Your task to perform on an android device: toggle location history Image 0: 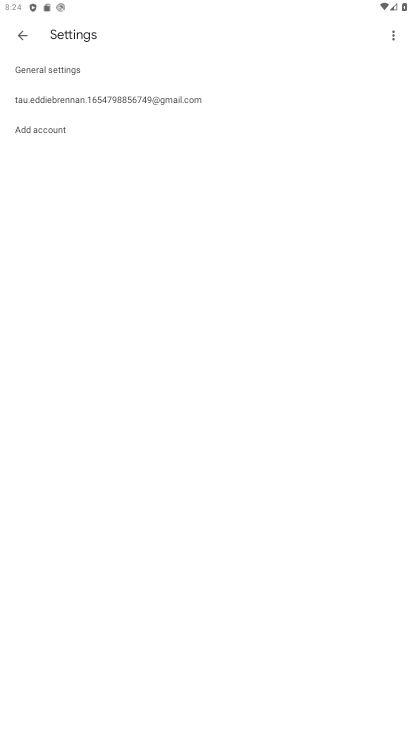
Step 0: press home button
Your task to perform on an android device: toggle location history Image 1: 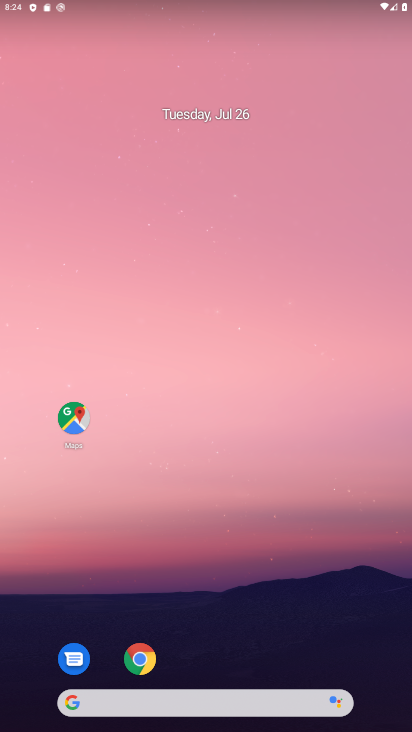
Step 1: click (80, 417)
Your task to perform on an android device: toggle location history Image 2: 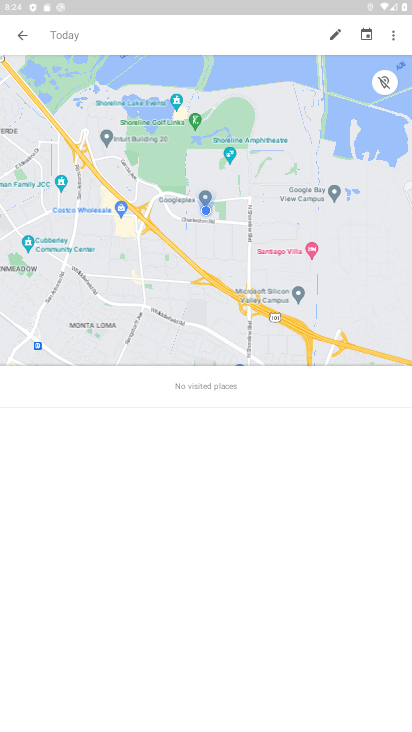
Step 2: press back button
Your task to perform on an android device: toggle location history Image 3: 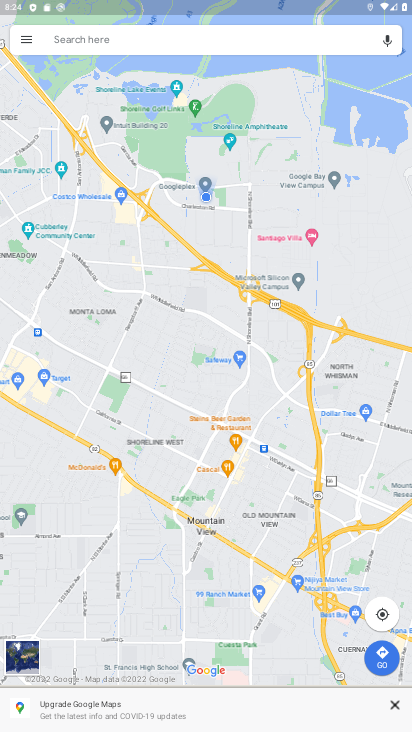
Step 3: click (23, 48)
Your task to perform on an android device: toggle location history Image 4: 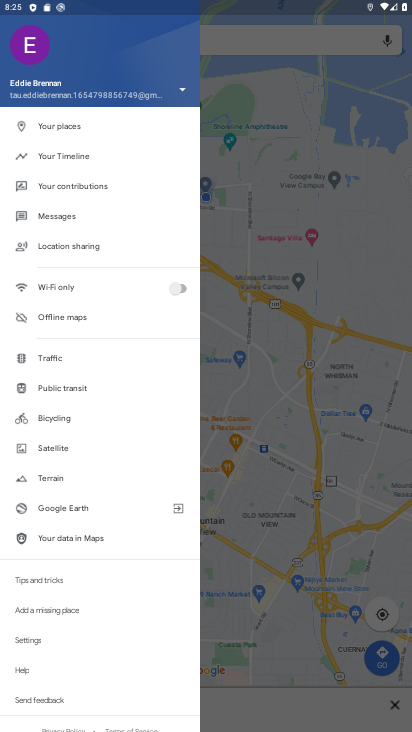
Step 4: click (28, 643)
Your task to perform on an android device: toggle location history Image 5: 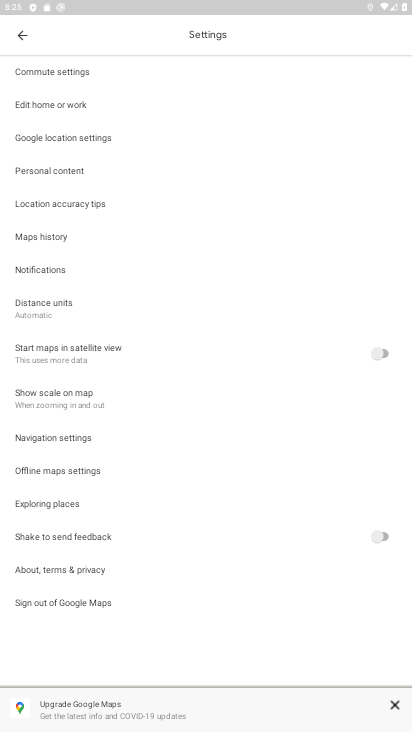
Step 5: click (36, 169)
Your task to perform on an android device: toggle location history Image 6: 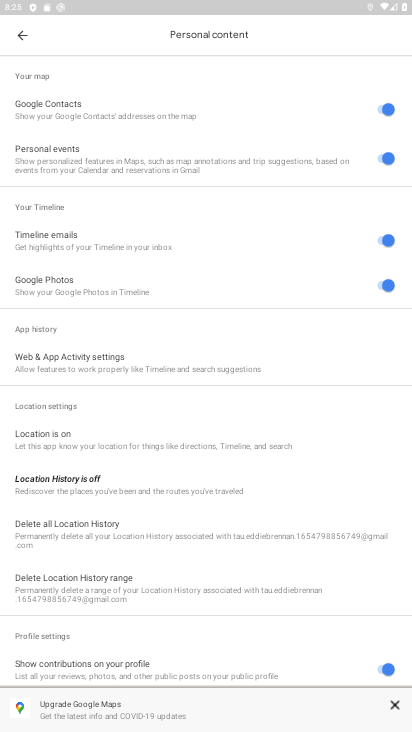
Step 6: click (52, 472)
Your task to perform on an android device: toggle location history Image 7: 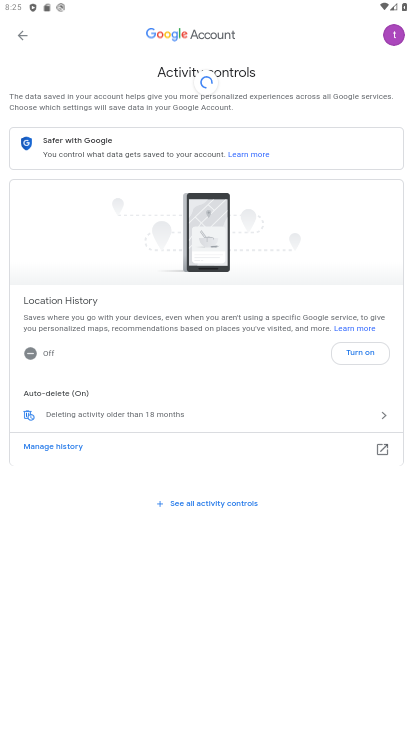
Step 7: click (358, 349)
Your task to perform on an android device: toggle location history Image 8: 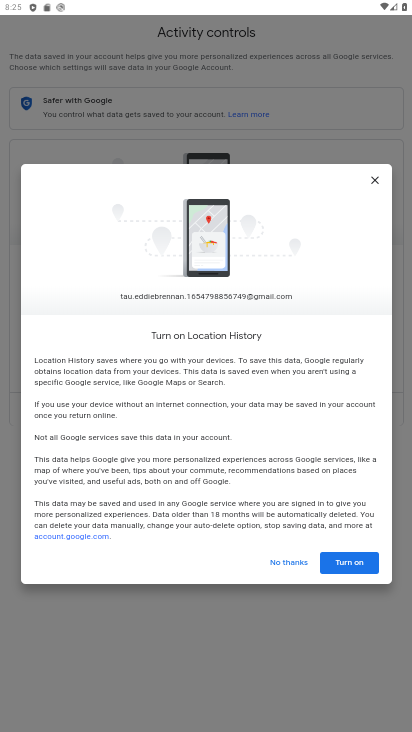
Step 8: click (354, 563)
Your task to perform on an android device: toggle location history Image 9: 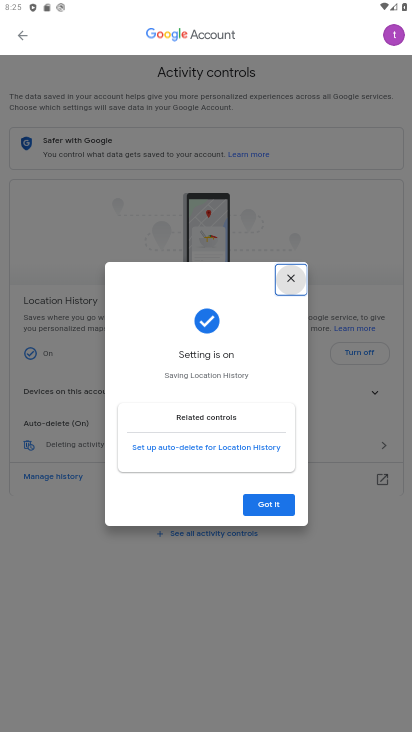
Step 9: click (273, 506)
Your task to perform on an android device: toggle location history Image 10: 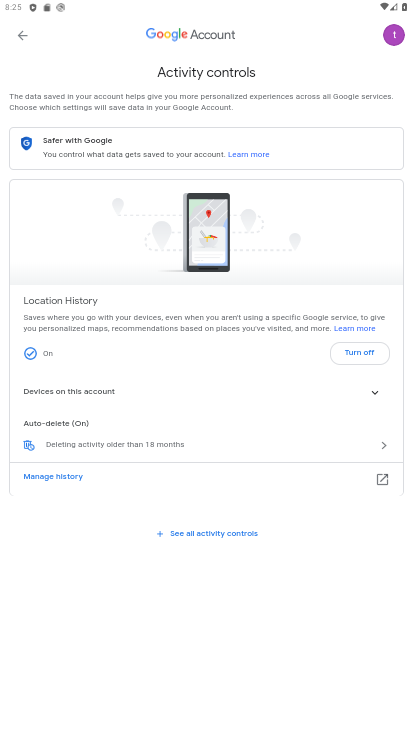
Step 10: task complete